Your task to perform on an android device: Open the phone app and click the voicemail tab. Image 0: 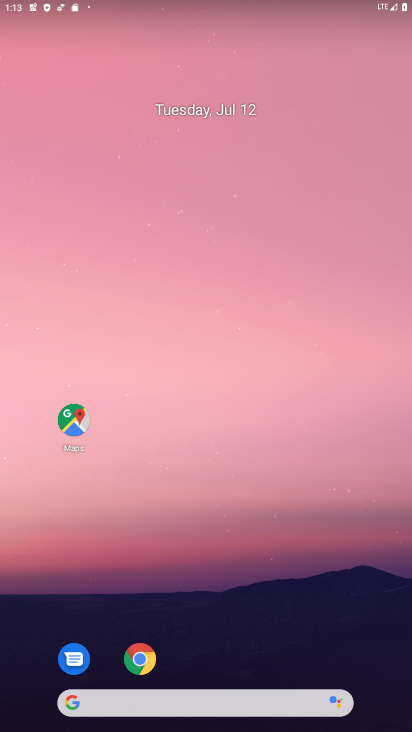
Step 0: drag from (240, 721) to (238, 248)
Your task to perform on an android device: Open the phone app and click the voicemail tab. Image 1: 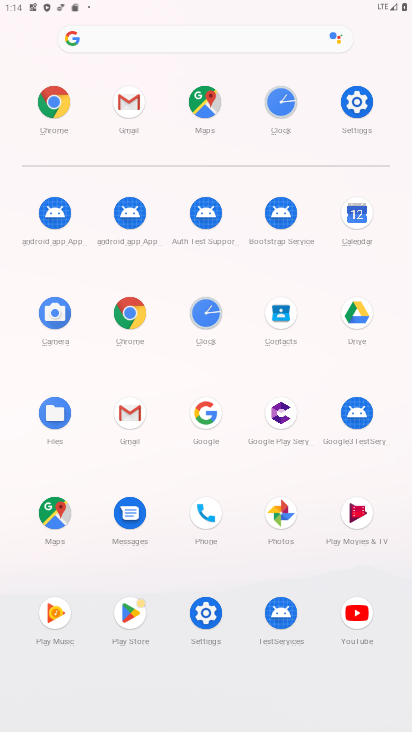
Step 1: click (203, 514)
Your task to perform on an android device: Open the phone app and click the voicemail tab. Image 2: 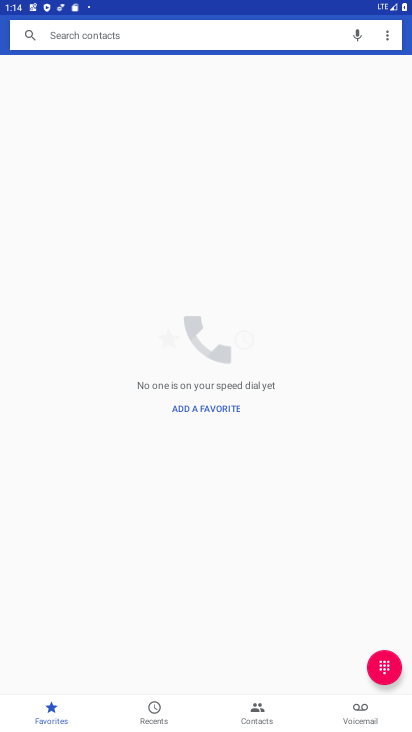
Step 2: click (358, 708)
Your task to perform on an android device: Open the phone app and click the voicemail tab. Image 3: 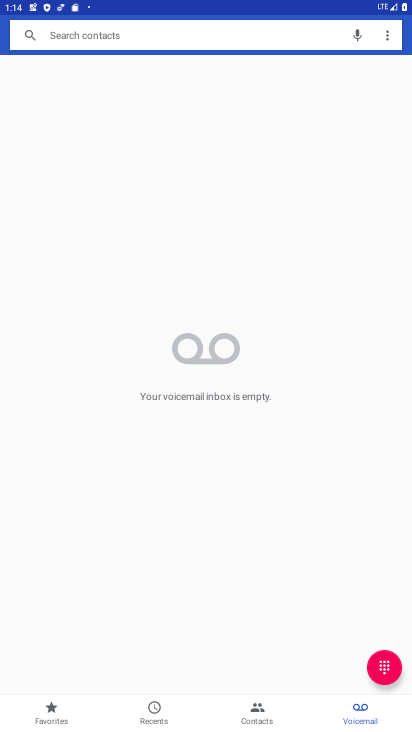
Step 3: task complete